Your task to perform on an android device: Open calendar and show me the first week of next month Image 0: 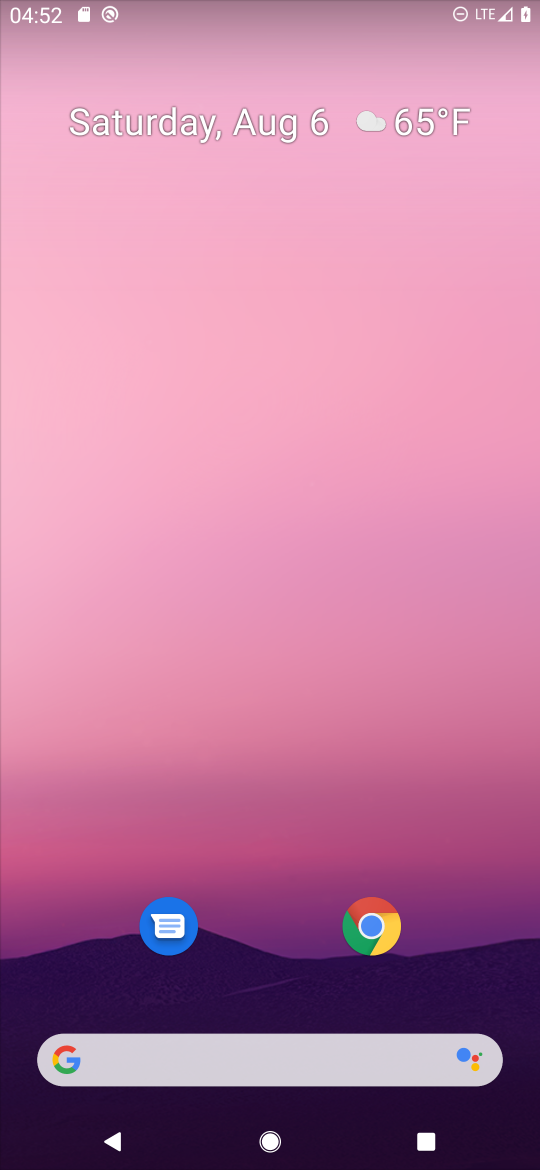
Step 0: press home button
Your task to perform on an android device: Open calendar and show me the first week of next month Image 1: 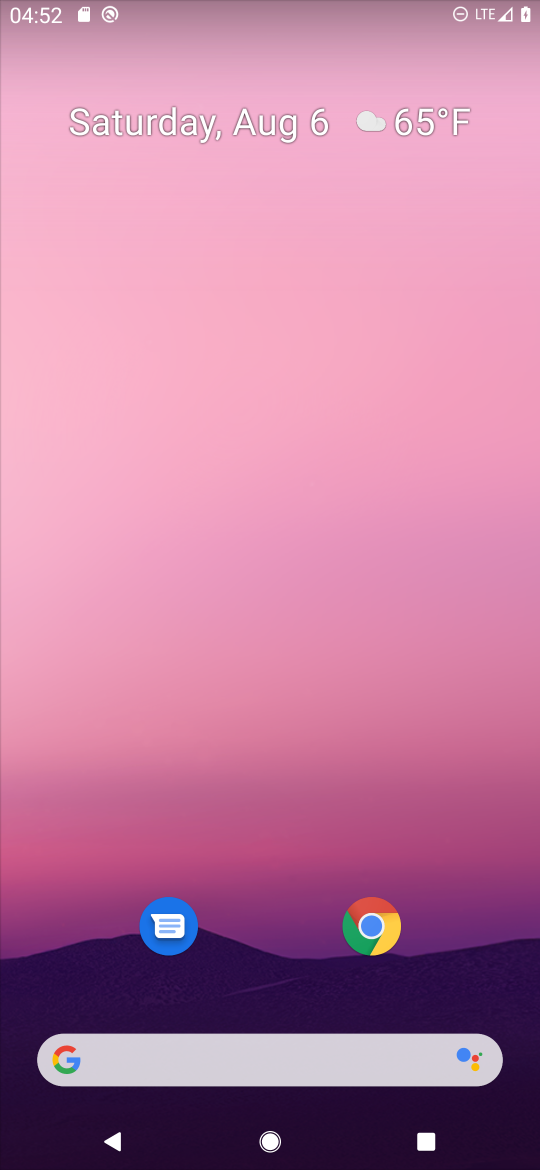
Step 1: drag from (274, 942) to (206, 225)
Your task to perform on an android device: Open calendar and show me the first week of next month Image 2: 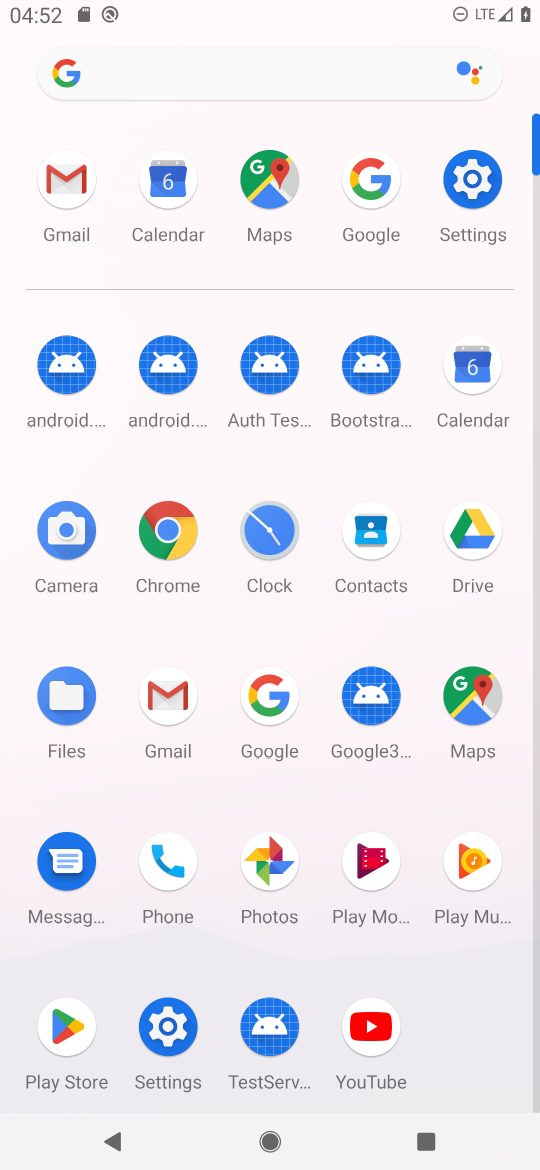
Step 2: click (464, 396)
Your task to perform on an android device: Open calendar and show me the first week of next month Image 3: 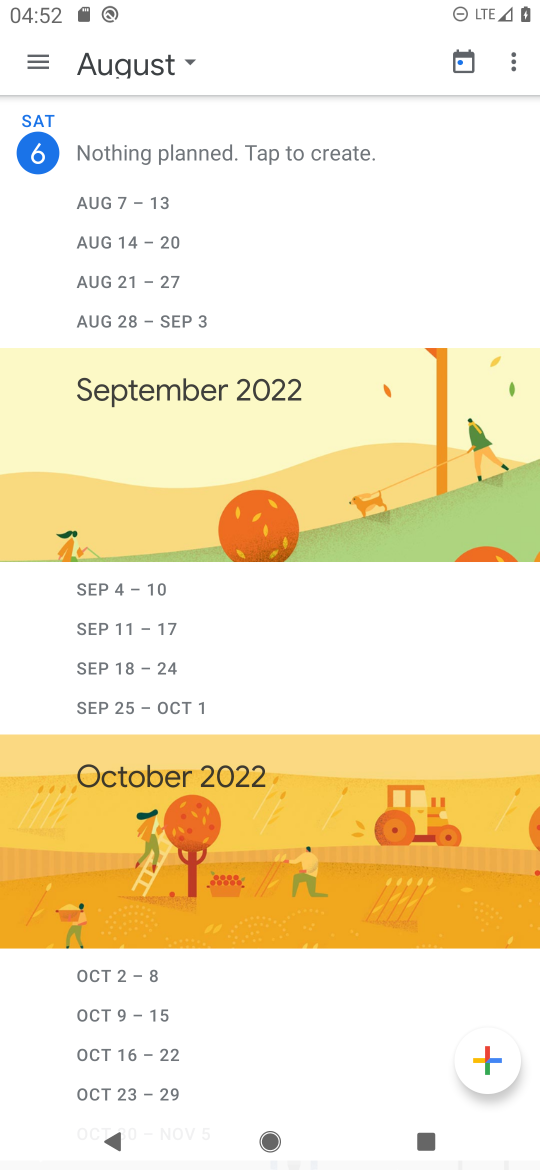
Step 3: click (200, 54)
Your task to perform on an android device: Open calendar and show me the first week of next month Image 4: 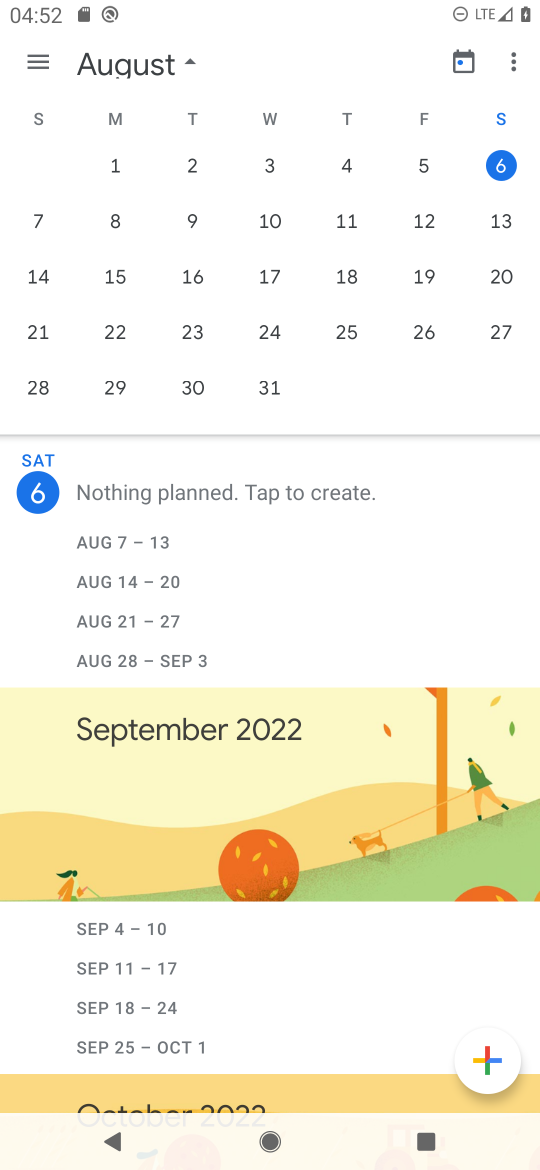
Step 4: drag from (454, 270) to (1, 233)
Your task to perform on an android device: Open calendar and show me the first week of next month Image 5: 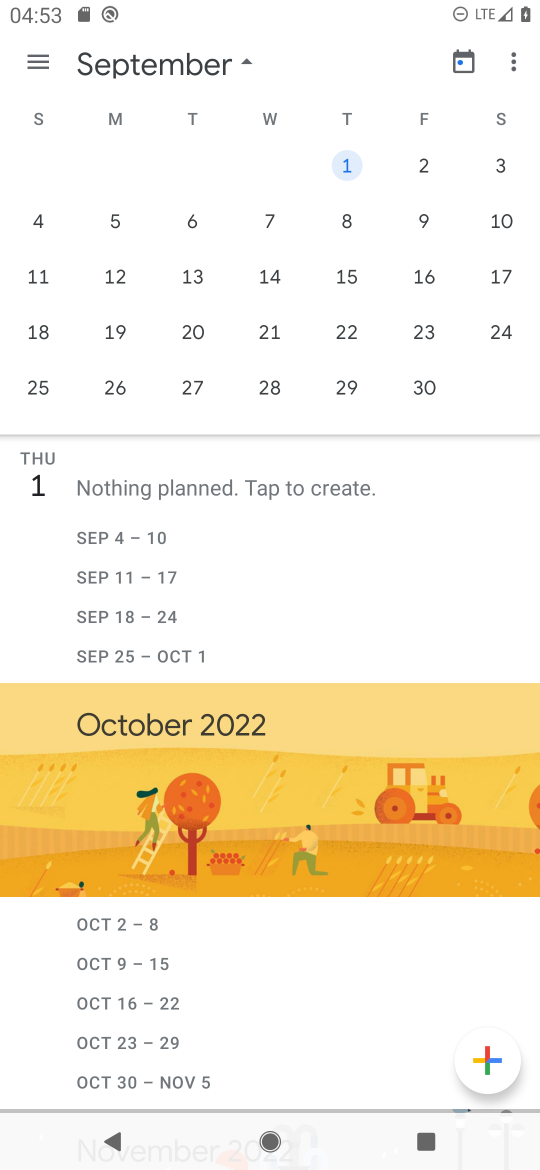
Step 5: click (342, 163)
Your task to perform on an android device: Open calendar and show me the first week of next month Image 6: 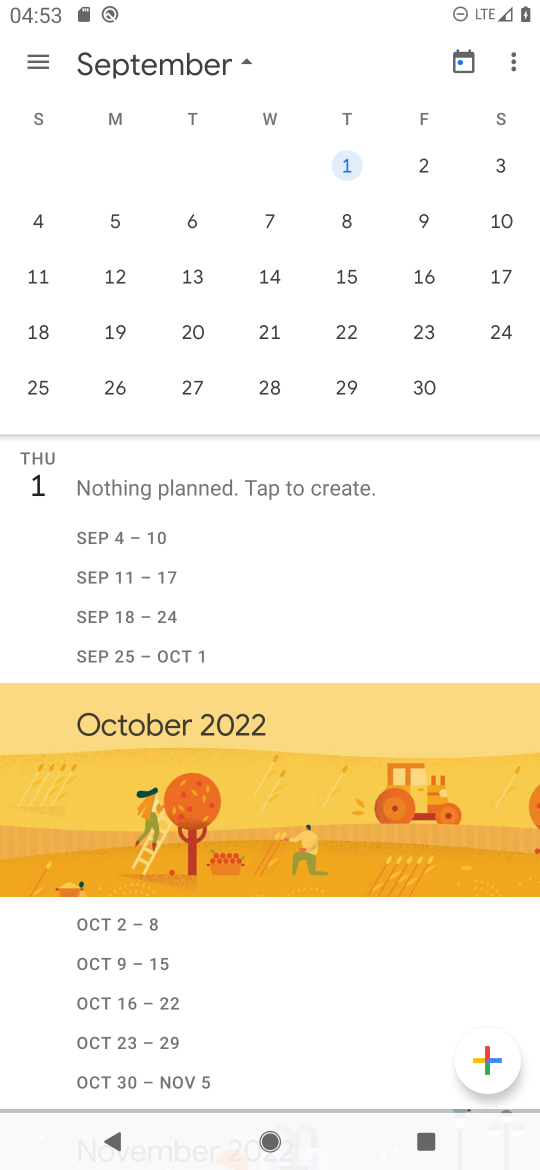
Step 6: click (428, 163)
Your task to perform on an android device: Open calendar and show me the first week of next month Image 7: 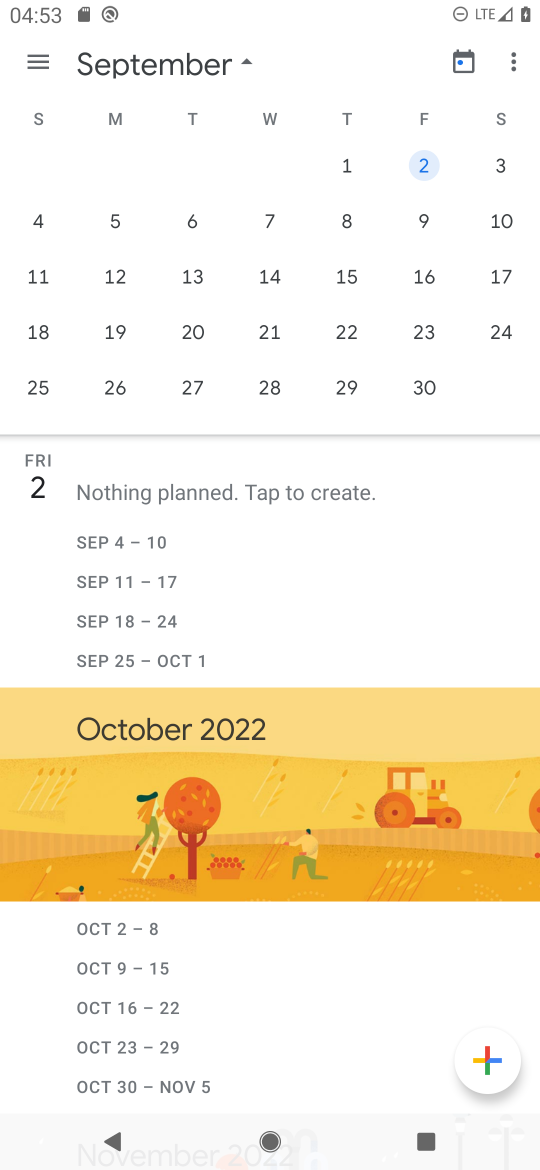
Step 7: task complete